Your task to perform on an android device: What is the news today? Image 0: 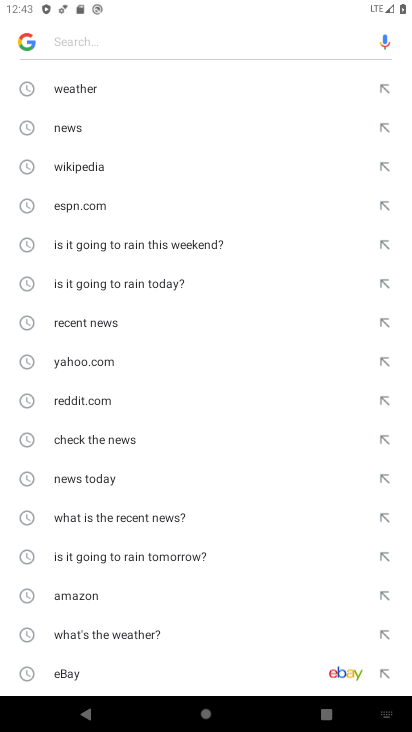
Step 0: press home button
Your task to perform on an android device: What is the news today? Image 1: 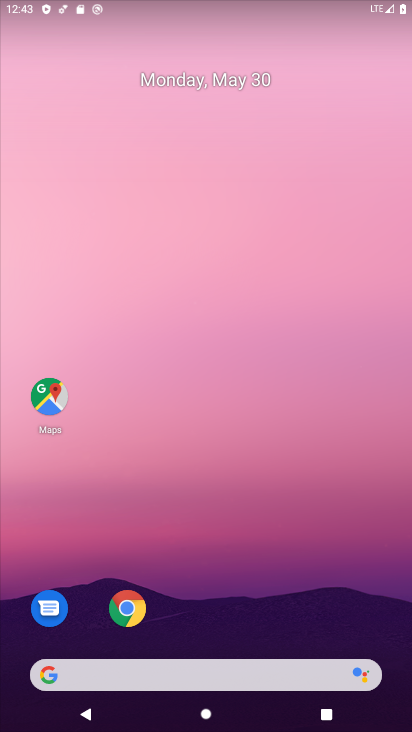
Step 1: click (210, 673)
Your task to perform on an android device: What is the news today? Image 2: 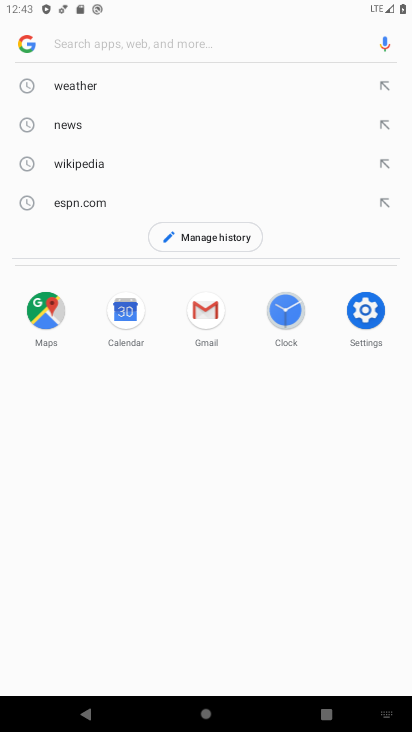
Step 2: type "news today ?]"
Your task to perform on an android device: What is the news today? Image 3: 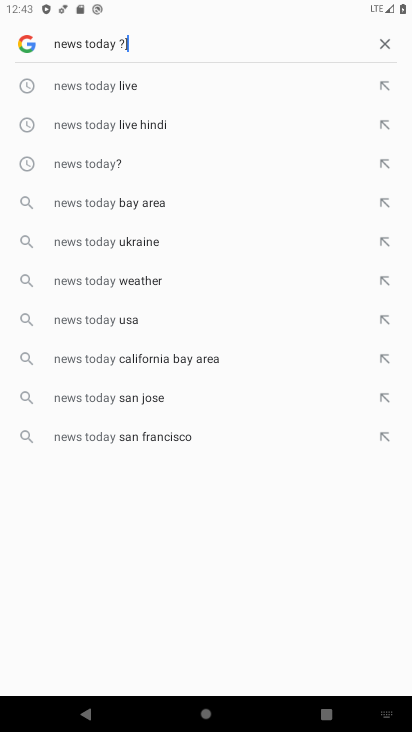
Step 3: click (117, 89)
Your task to perform on an android device: What is the news today? Image 4: 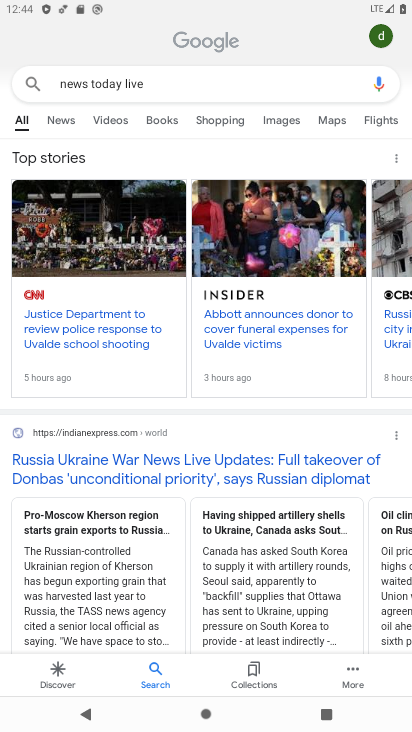
Step 4: task complete